Your task to perform on an android device: install app "The Home Depot" Image 0: 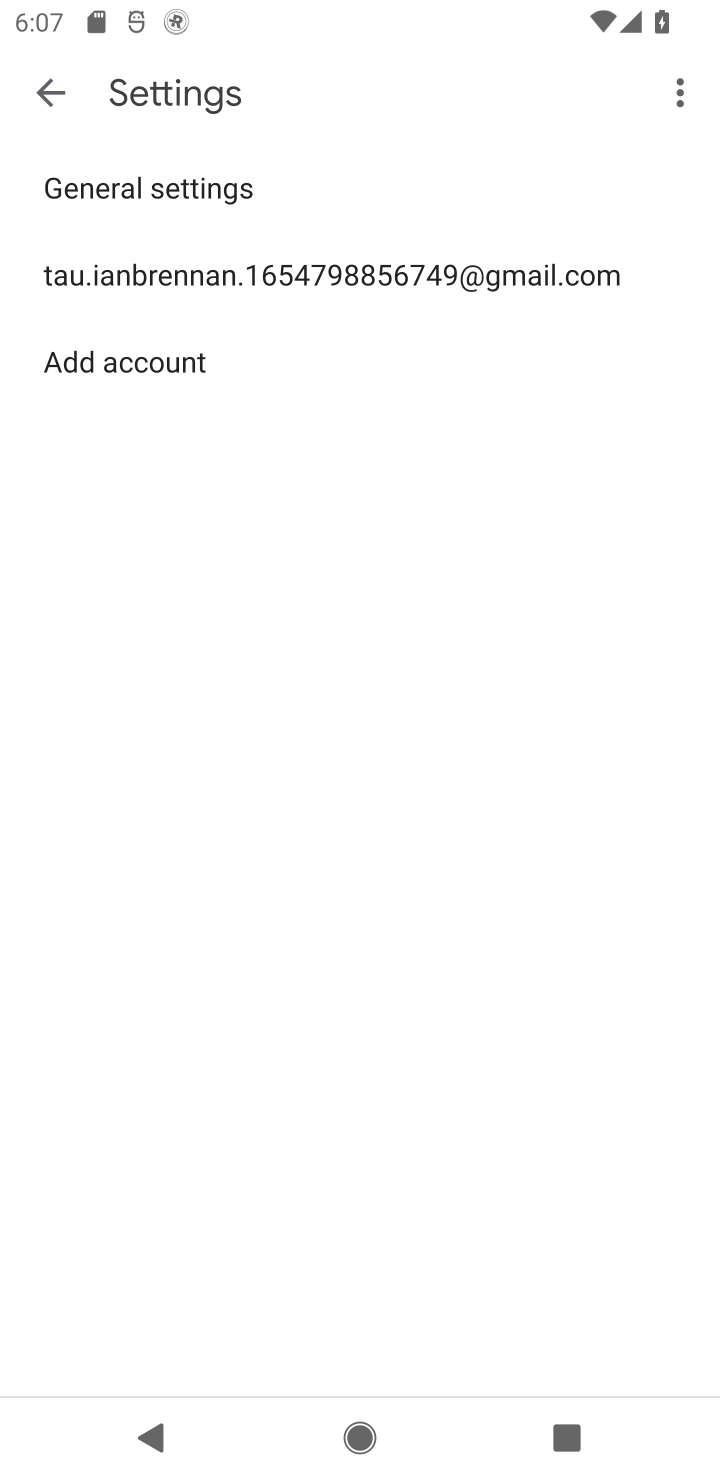
Step 0: press home button
Your task to perform on an android device: install app "The Home Depot" Image 1: 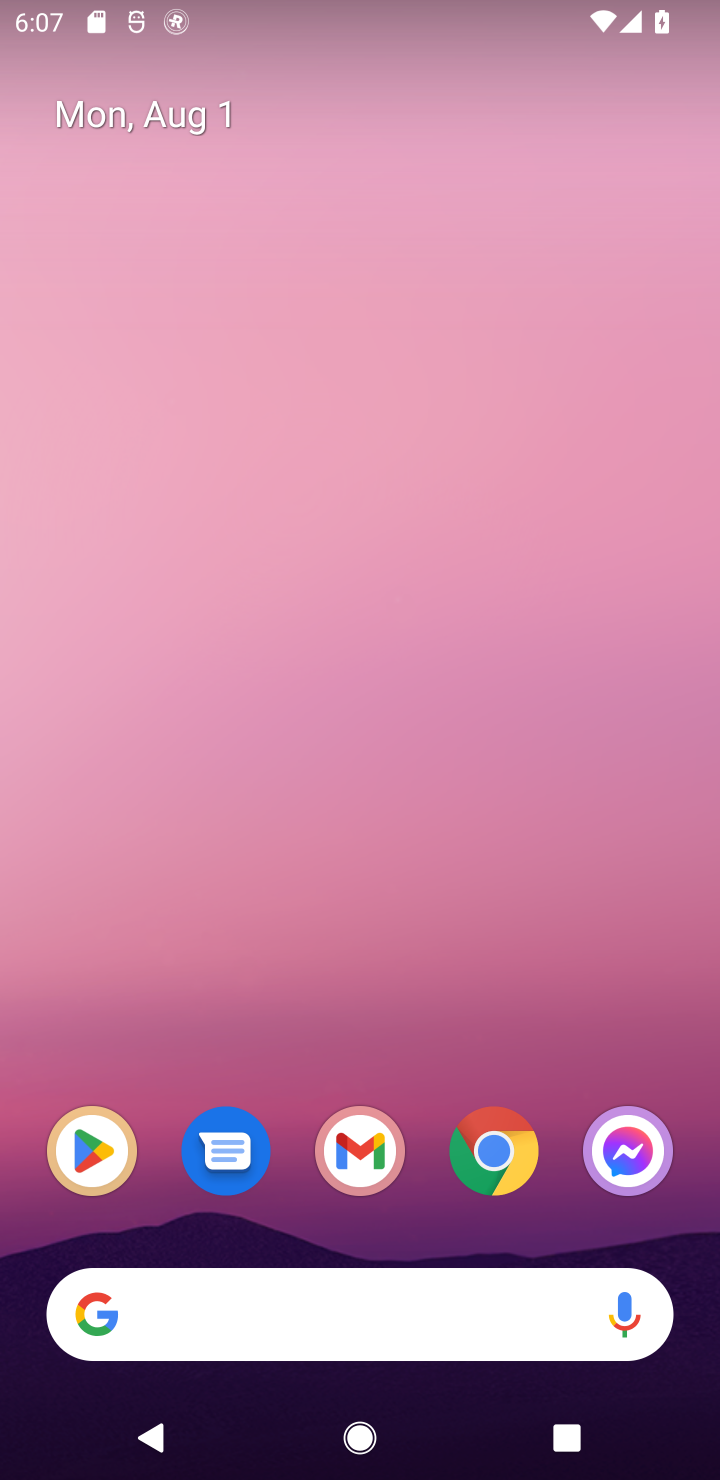
Step 1: click (69, 1153)
Your task to perform on an android device: install app "The Home Depot" Image 2: 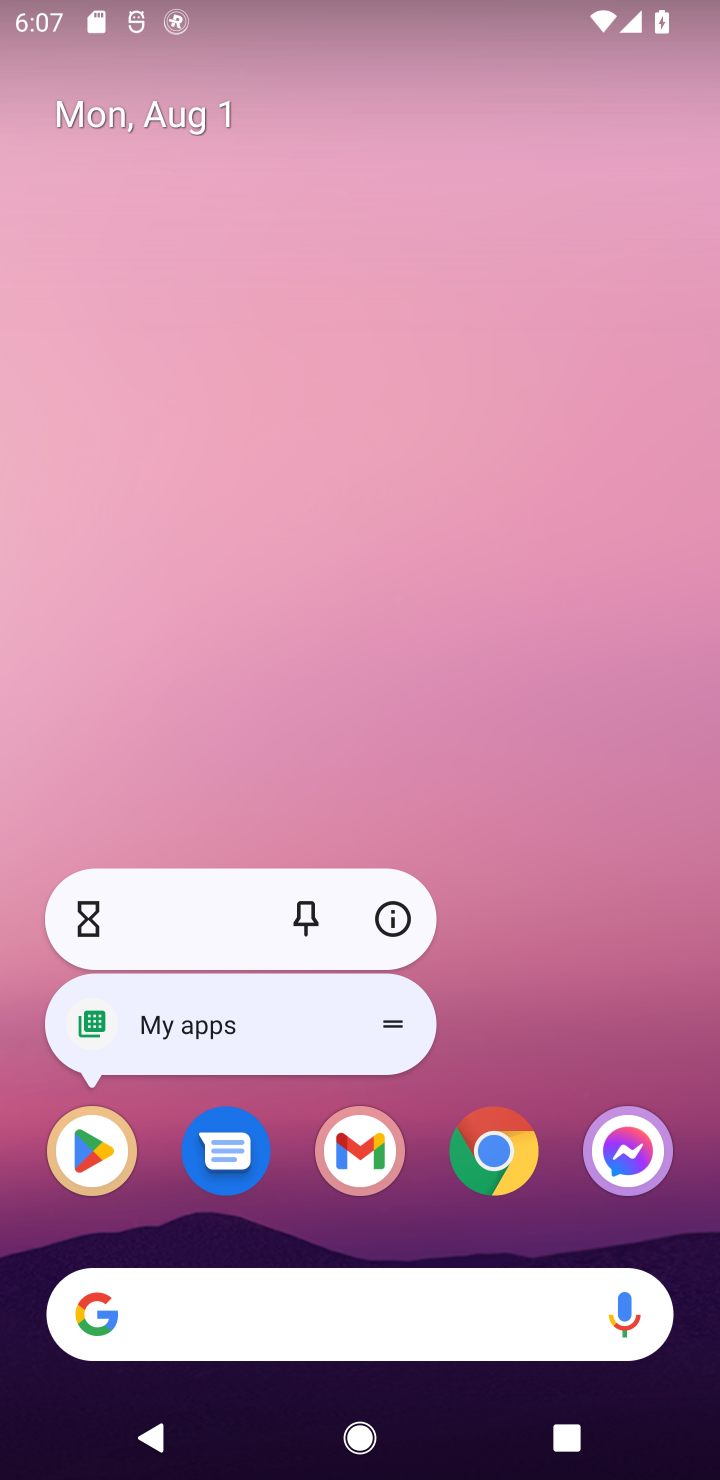
Step 2: click (65, 1156)
Your task to perform on an android device: install app "The Home Depot" Image 3: 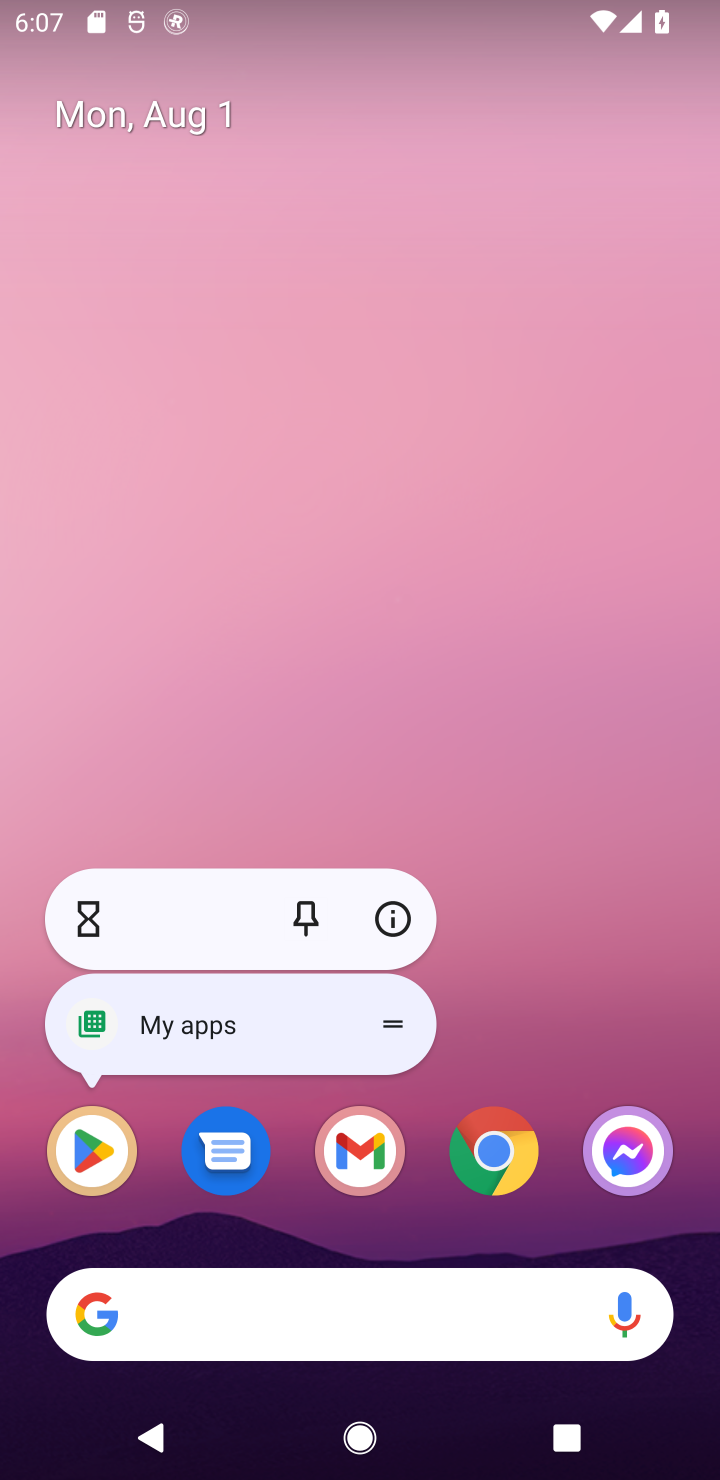
Step 3: click (87, 1163)
Your task to perform on an android device: install app "The Home Depot" Image 4: 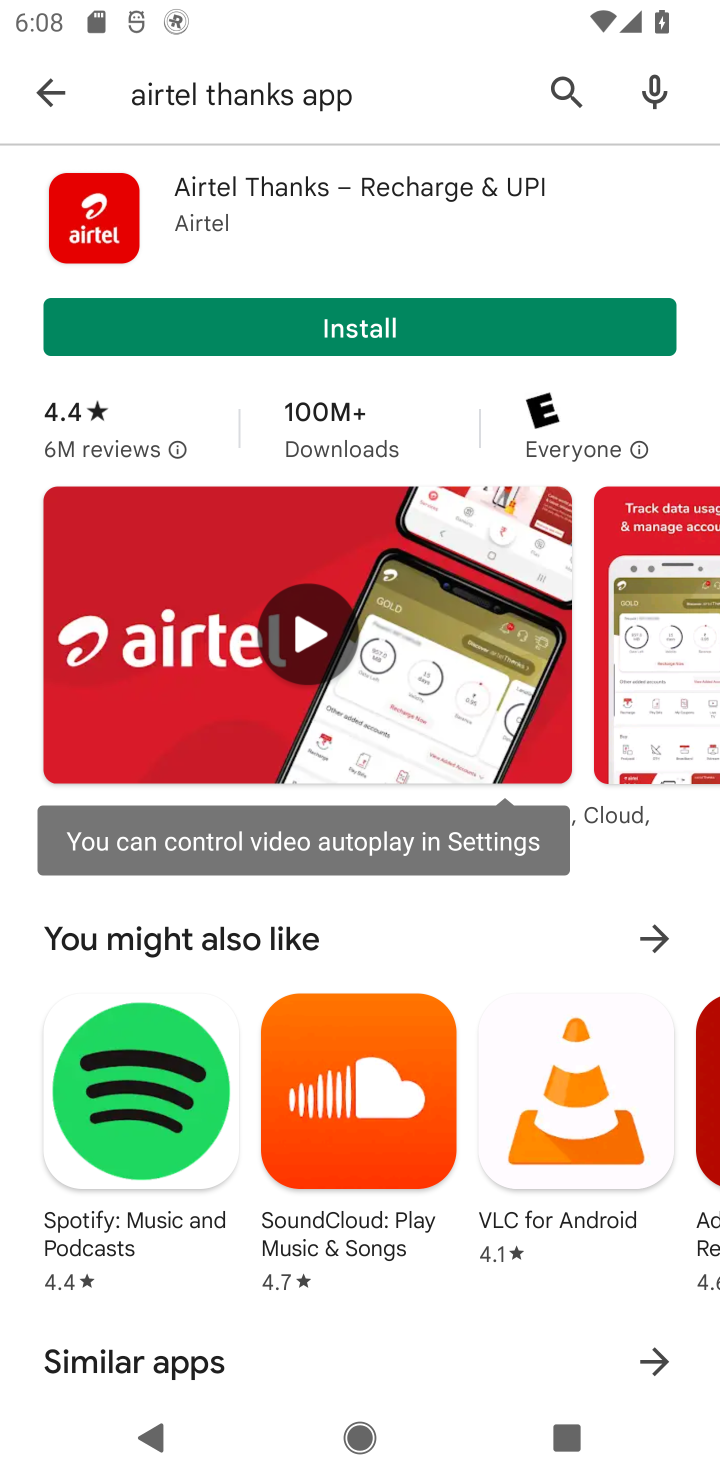
Step 4: click (557, 97)
Your task to perform on an android device: install app "The Home Depot" Image 5: 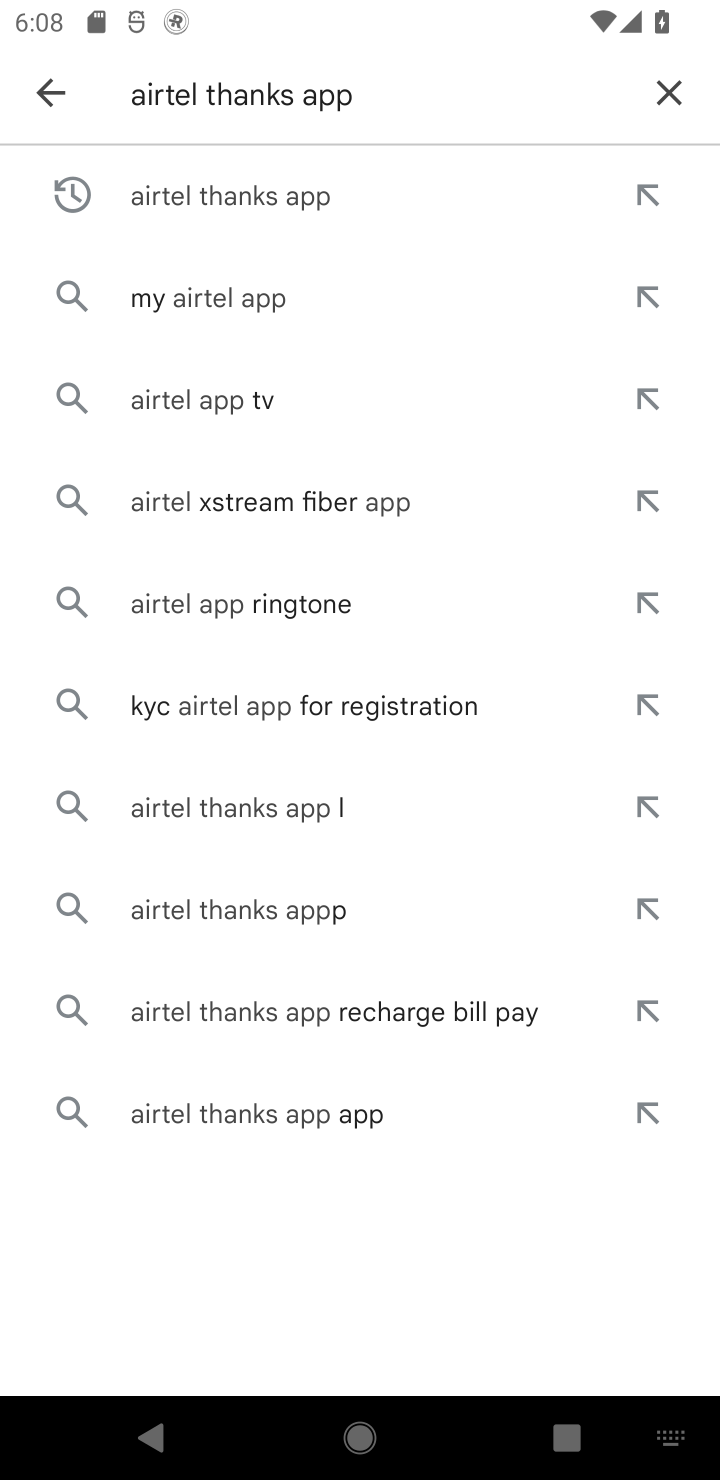
Step 5: click (660, 97)
Your task to perform on an android device: install app "The Home Depot" Image 6: 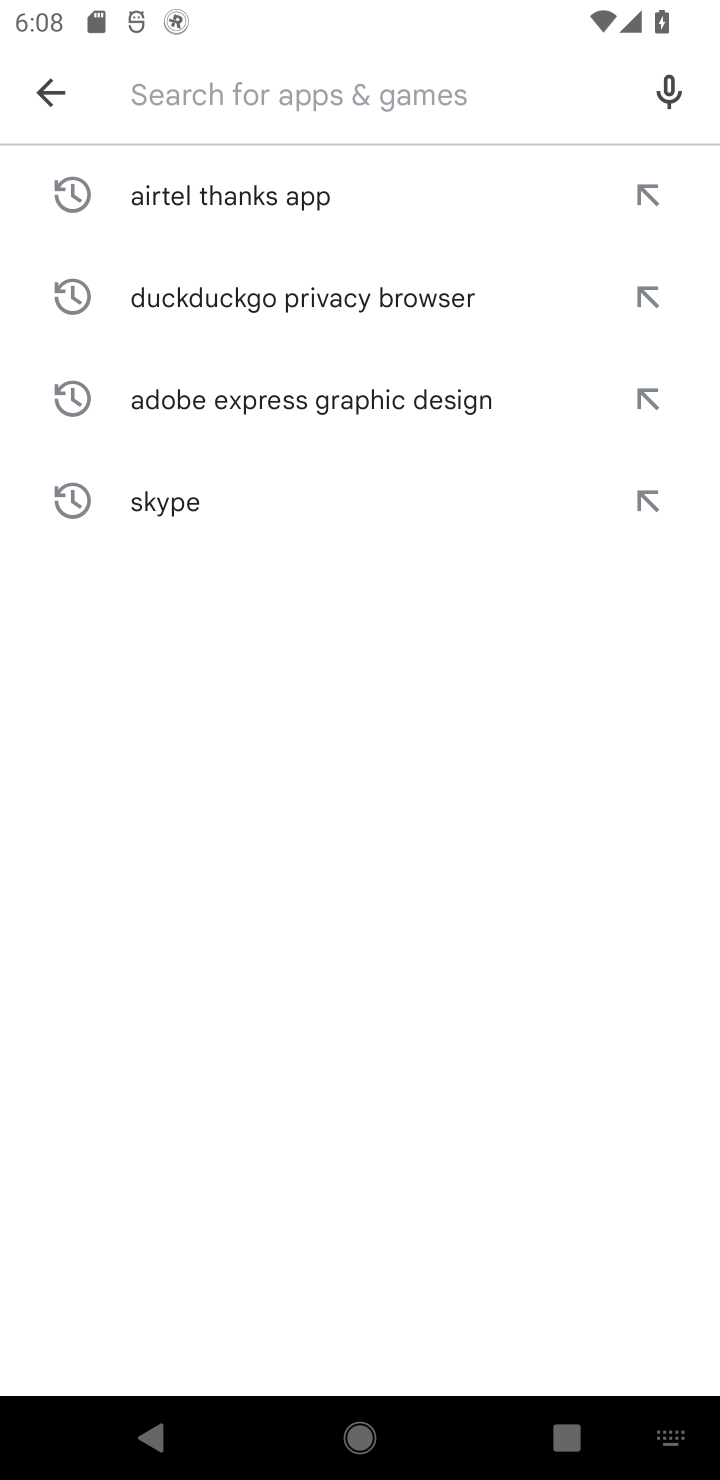
Step 6: type "The Home Depot"
Your task to perform on an android device: install app "The Home Depot" Image 7: 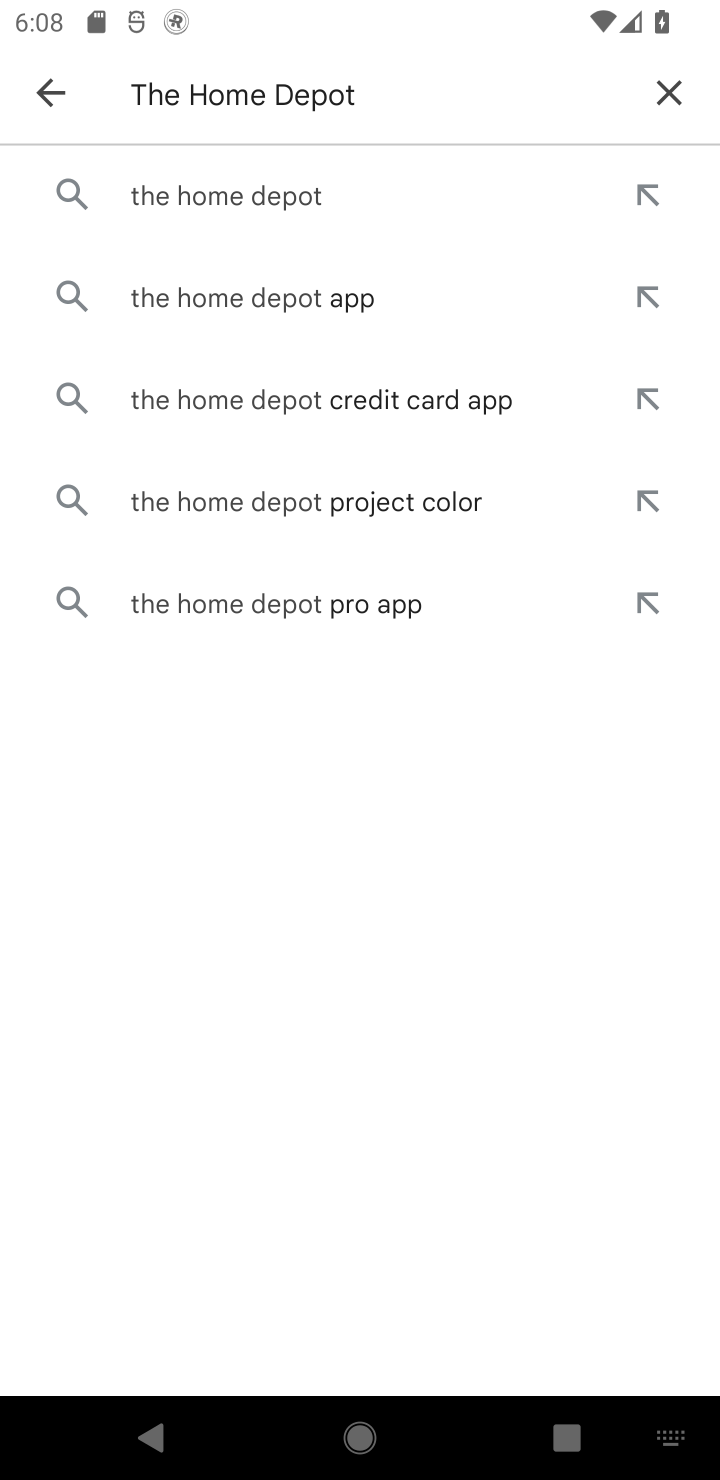
Step 7: click (183, 177)
Your task to perform on an android device: install app "The Home Depot" Image 8: 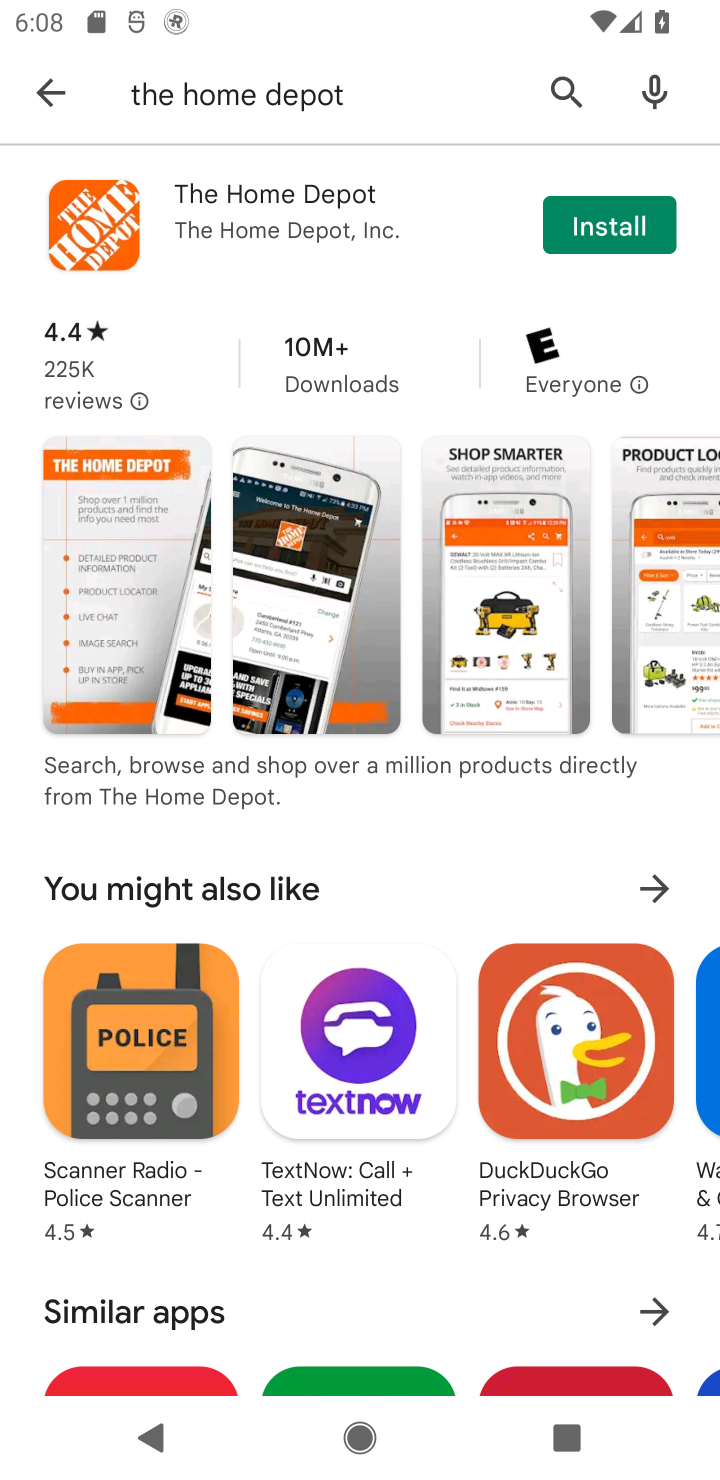
Step 8: click (639, 220)
Your task to perform on an android device: install app "The Home Depot" Image 9: 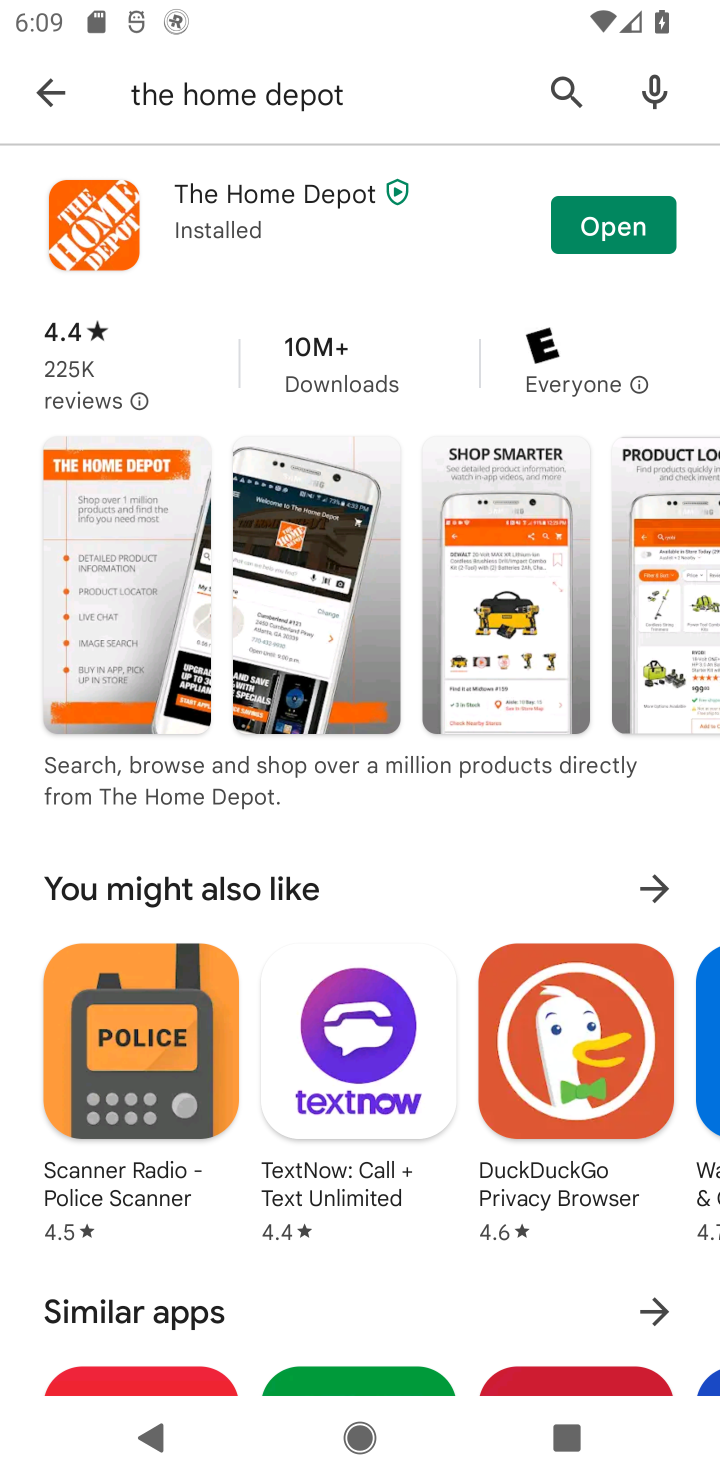
Step 9: task complete